Your task to perform on an android device: see tabs open on other devices in the chrome app Image 0: 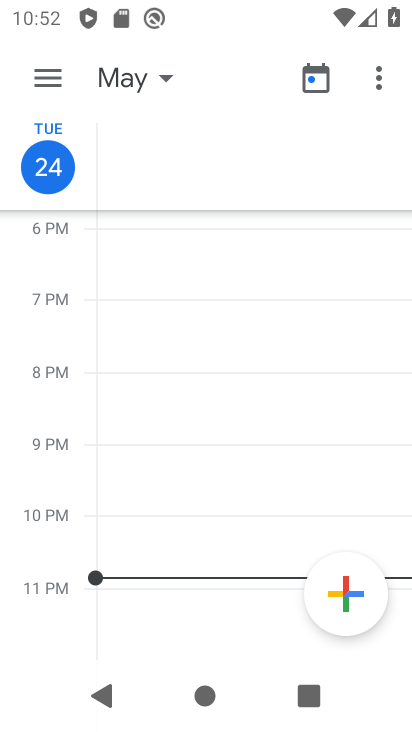
Step 0: press home button
Your task to perform on an android device: see tabs open on other devices in the chrome app Image 1: 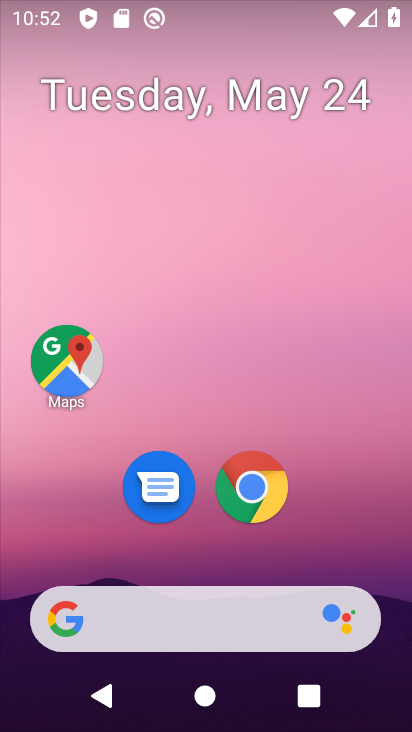
Step 1: click (260, 489)
Your task to perform on an android device: see tabs open on other devices in the chrome app Image 2: 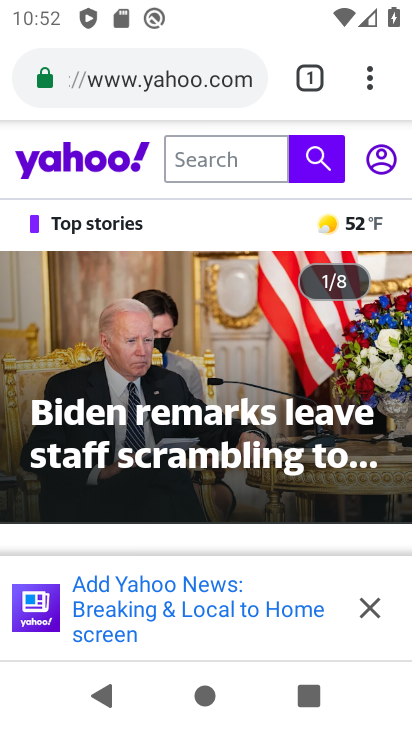
Step 2: task complete